Your task to perform on an android device: turn on wifi Image 0: 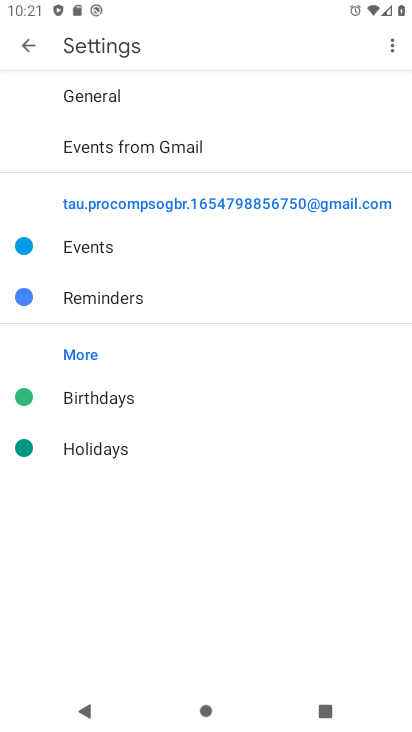
Step 0: press back button
Your task to perform on an android device: turn on wifi Image 1: 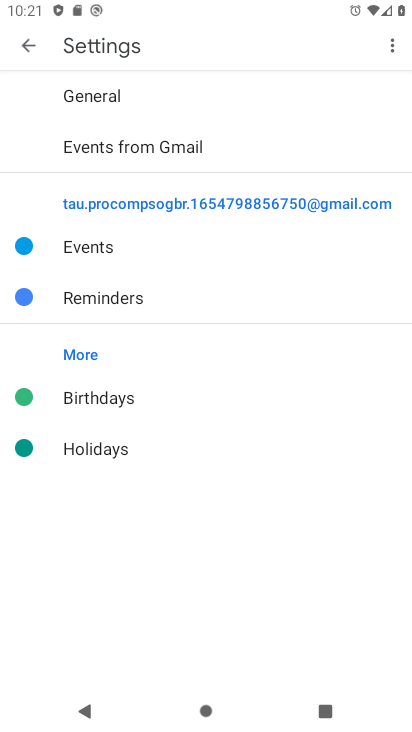
Step 1: task complete